Your task to perform on an android device: Open notification settings Image 0: 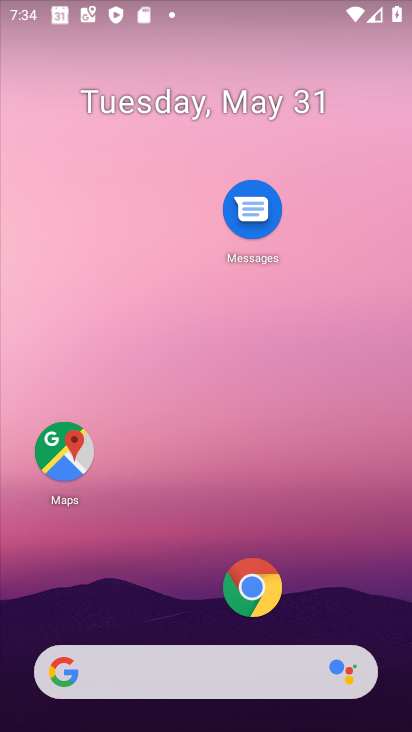
Step 0: click (192, 684)
Your task to perform on an android device: Open notification settings Image 1: 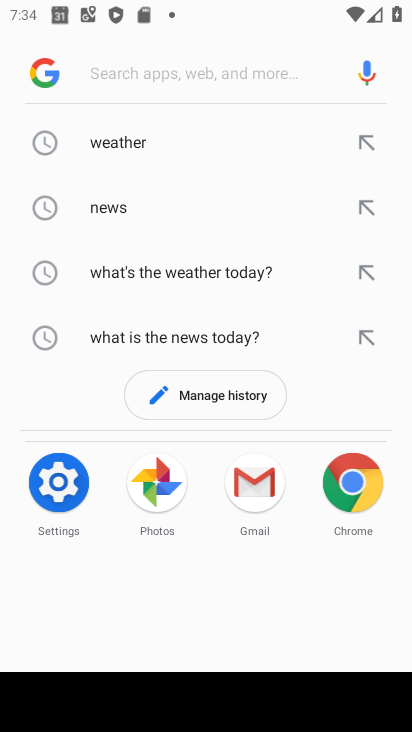
Step 1: press home button
Your task to perform on an android device: Open notification settings Image 2: 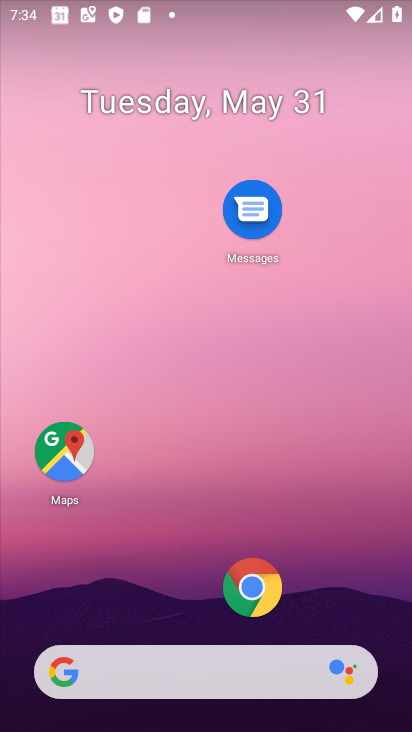
Step 2: drag from (208, 601) to (281, 3)
Your task to perform on an android device: Open notification settings Image 3: 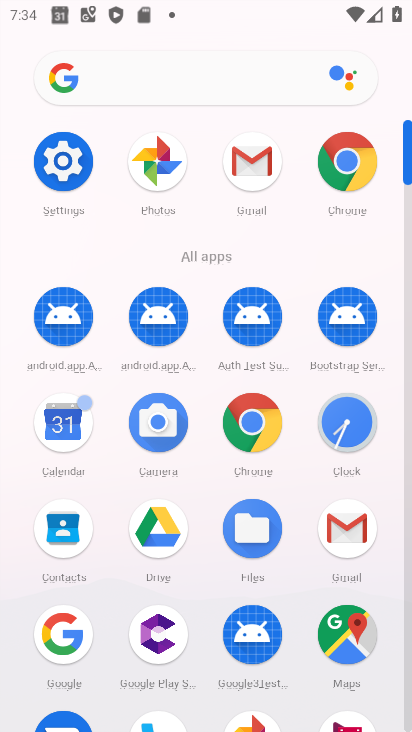
Step 3: click (72, 177)
Your task to perform on an android device: Open notification settings Image 4: 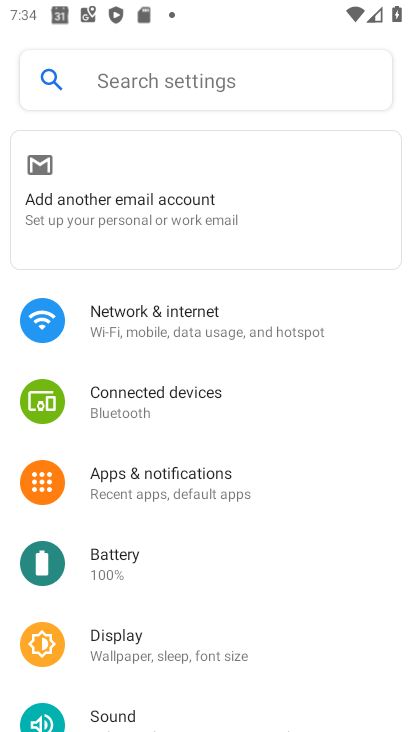
Step 4: click (154, 522)
Your task to perform on an android device: Open notification settings Image 5: 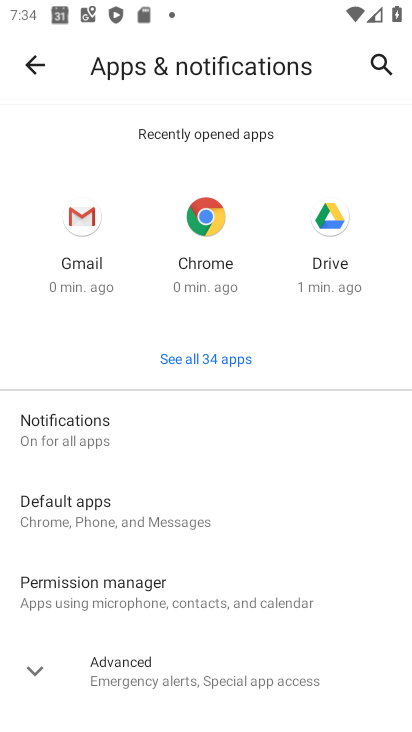
Step 5: click (97, 444)
Your task to perform on an android device: Open notification settings Image 6: 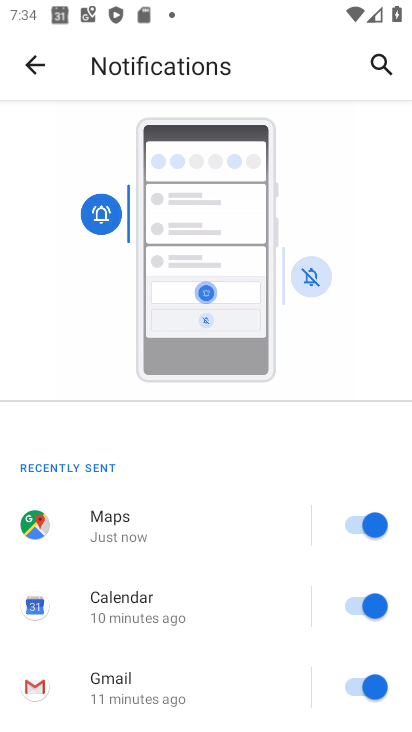
Step 6: task complete